Your task to perform on an android device: Open Maps and search for coffee Image 0: 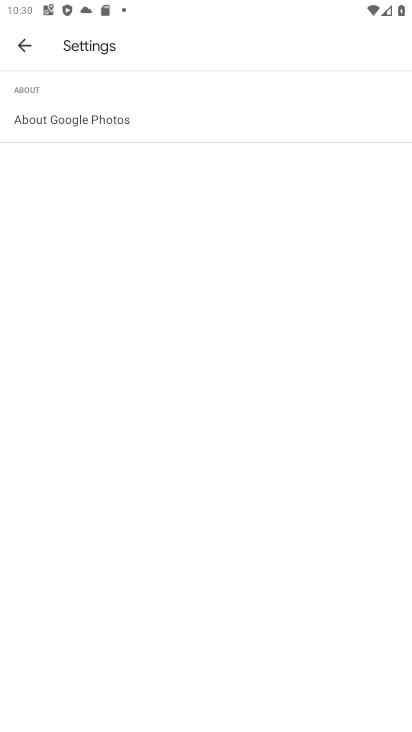
Step 0: press home button
Your task to perform on an android device: Open Maps and search for coffee Image 1: 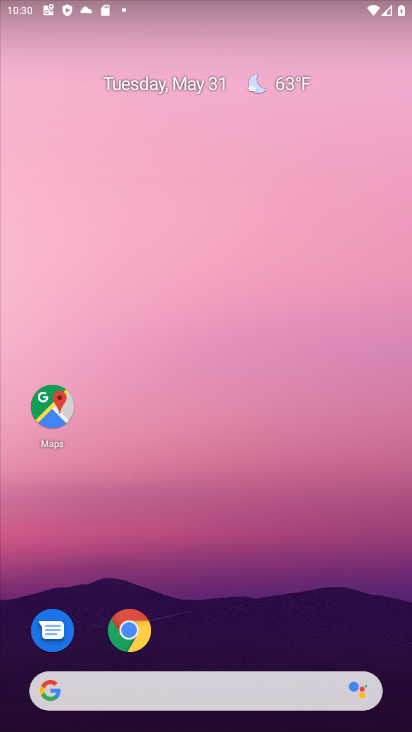
Step 1: click (53, 401)
Your task to perform on an android device: Open Maps and search for coffee Image 2: 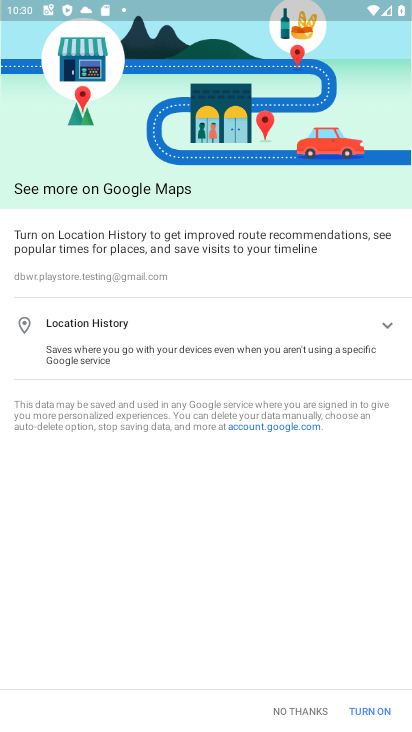
Step 2: click (291, 705)
Your task to perform on an android device: Open Maps and search for coffee Image 3: 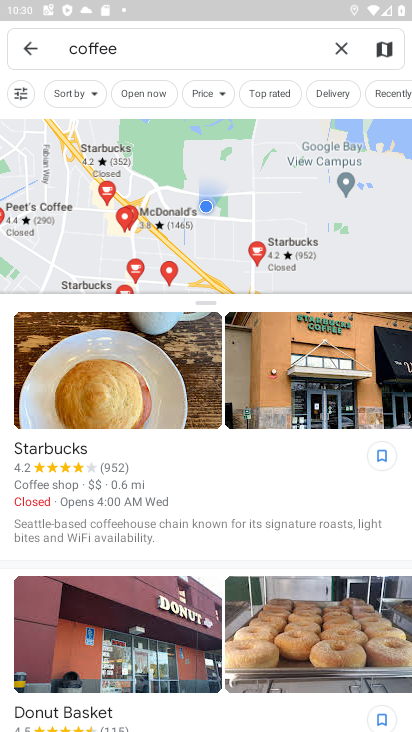
Step 3: task complete